Your task to perform on an android device: turn off picture-in-picture Image 0: 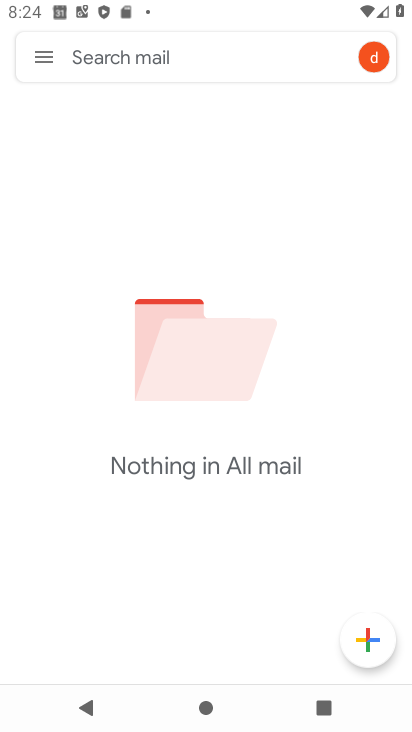
Step 0: press home button
Your task to perform on an android device: turn off picture-in-picture Image 1: 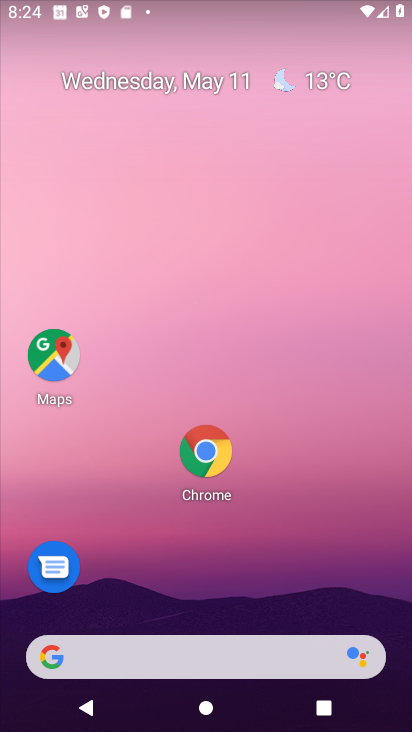
Step 1: click (213, 445)
Your task to perform on an android device: turn off picture-in-picture Image 2: 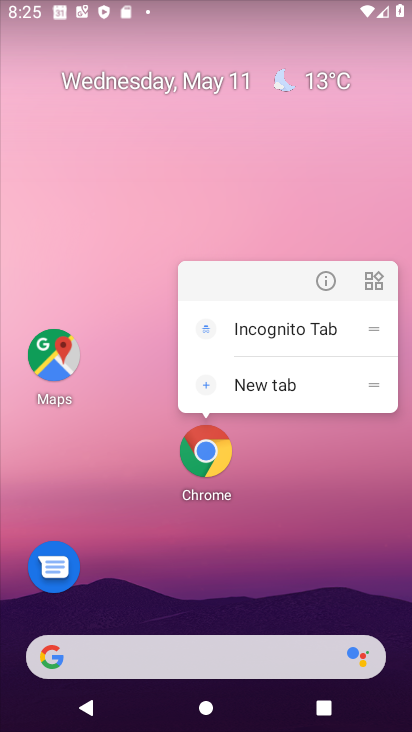
Step 2: click (337, 281)
Your task to perform on an android device: turn off picture-in-picture Image 3: 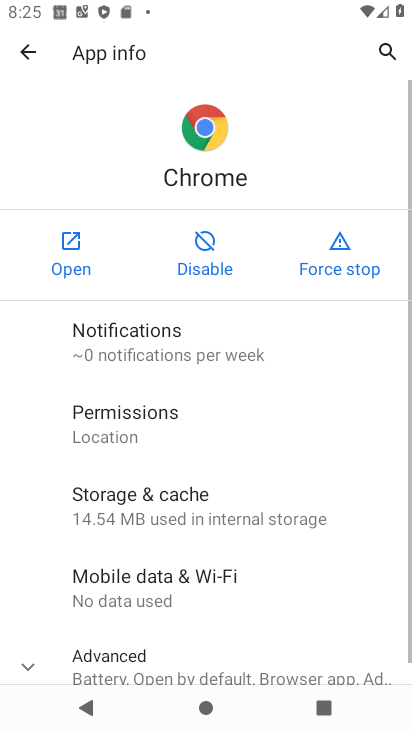
Step 3: drag from (185, 632) to (340, 135)
Your task to perform on an android device: turn off picture-in-picture Image 4: 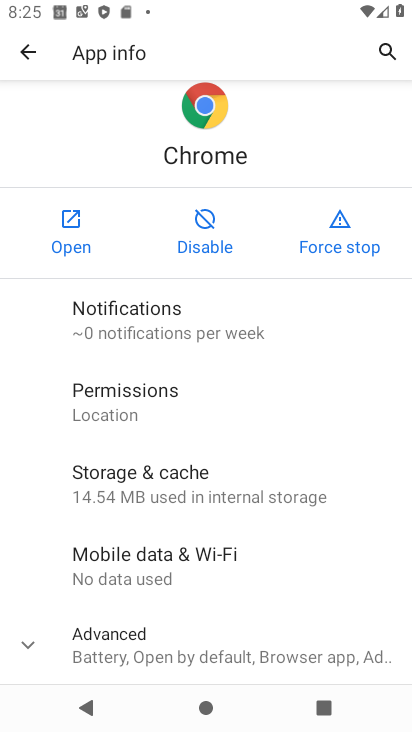
Step 4: click (127, 636)
Your task to perform on an android device: turn off picture-in-picture Image 5: 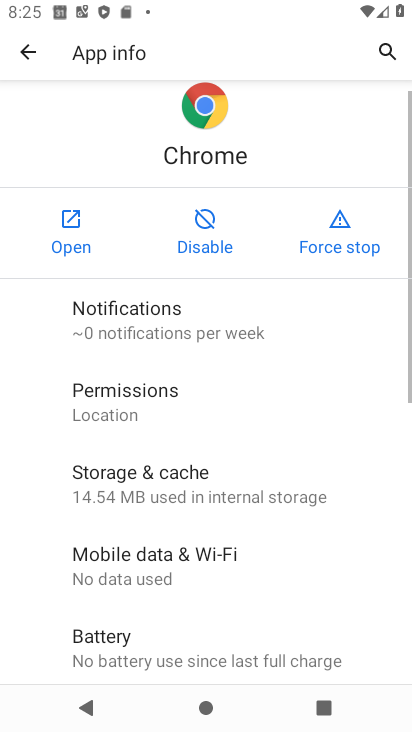
Step 5: drag from (127, 636) to (312, 260)
Your task to perform on an android device: turn off picture-in-picture Image 6: 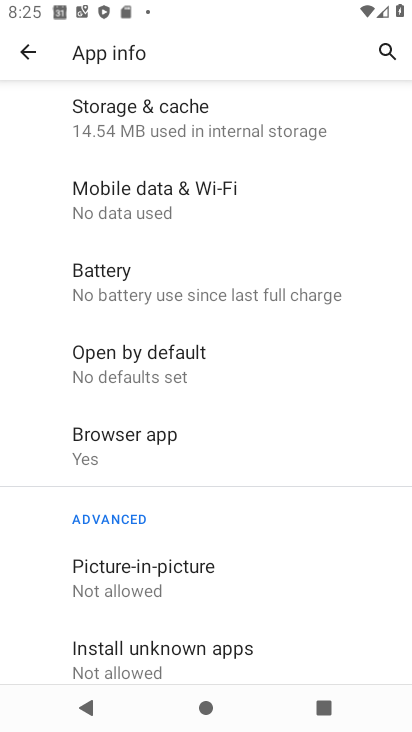
Step 6: click (171, 569)
Your task to perform on an android device: turn off picture-in-picture Image 7: 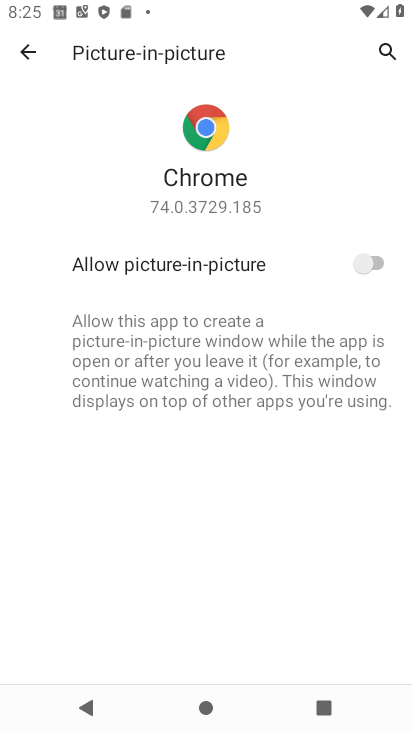
Step 7: task complete